Your task to perform on an android device: Toggle the flashlight Image 0: 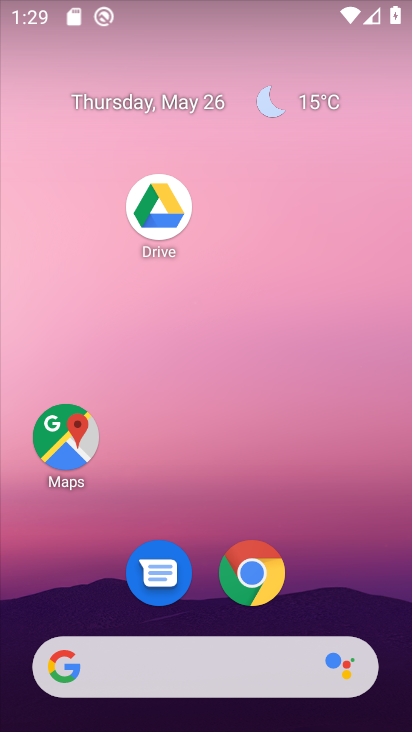
Step 0: drag from (336, 8) to (330, 547)
Your task to perform on an android device: Toggle the flashlight Image 1: 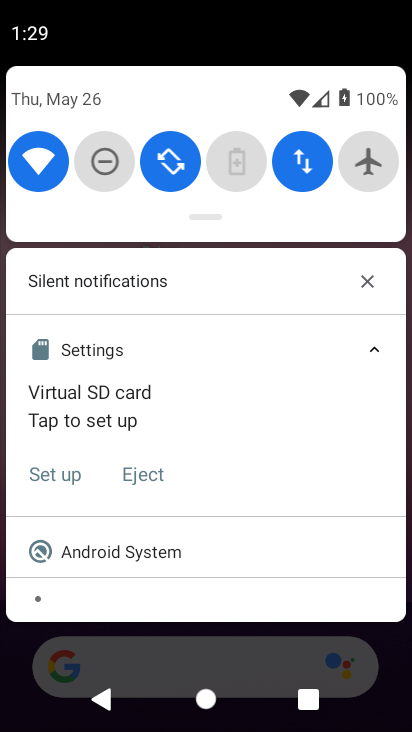
Step 1: task complete